Your task to perform on an android device: Go to Amazon Image 0: 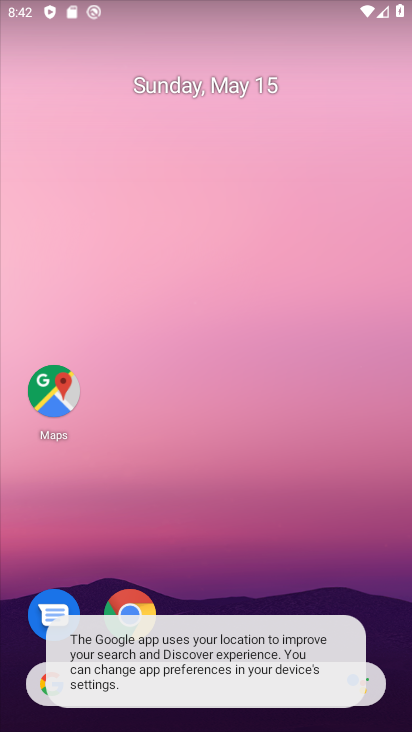
Step 0: drag from (245, 564) to (166, 14)
Your task to perform on an android device: Go to Amazon Image 1: 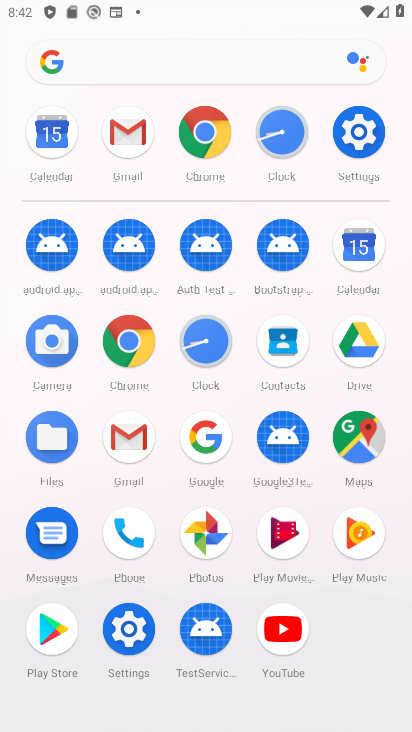
Step 1: click (128, 340)
Your task to perform on an android device: Go to Amazon Image 2: 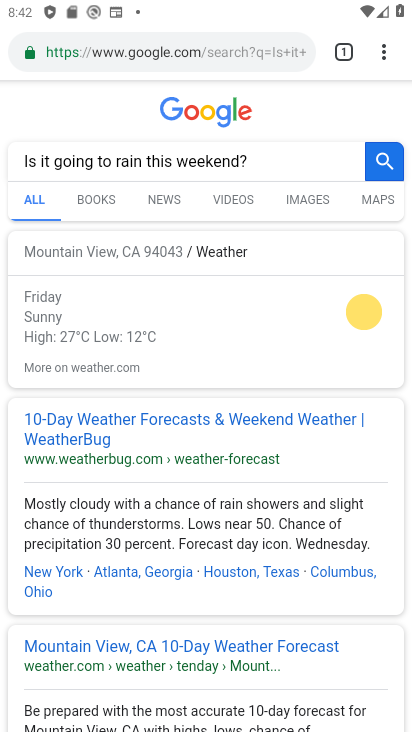
Step 2: click (185, 41)
Your task to perform on an android device: Go to Amazon Image 3: 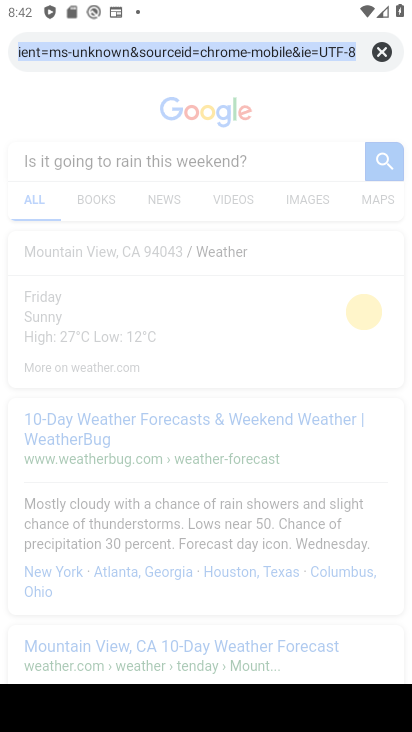
Step 3: click (377, 55)
Your task to perform on an android device: Go to Amazon Image 4: 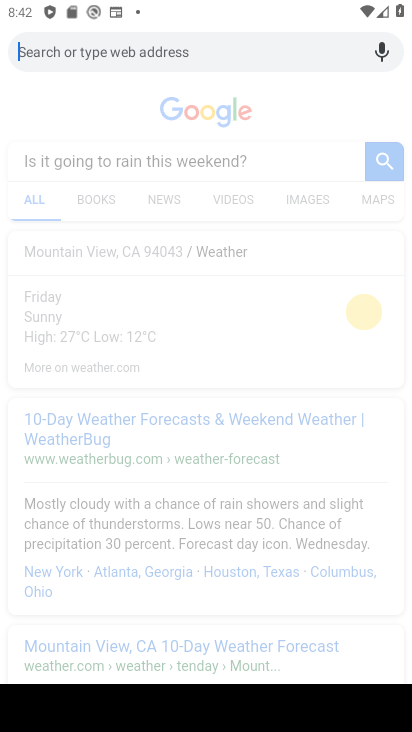
Step 4: type "Amazon"
Your task to perform on an android device: Go to Amazon Image 5: 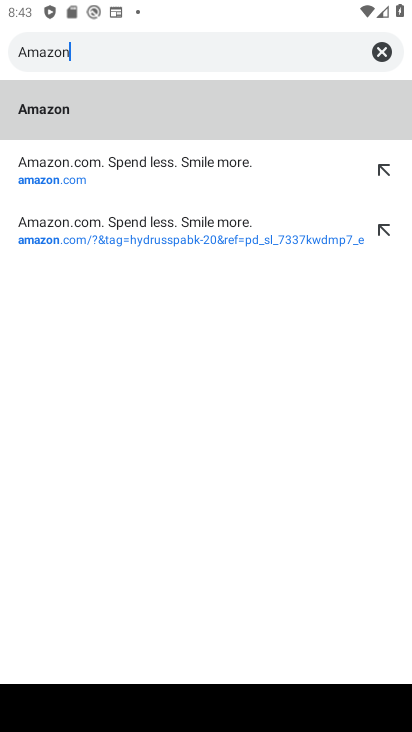
Step 5: type ""
Your task to perform on an android device: Go to Amazon Image 6: 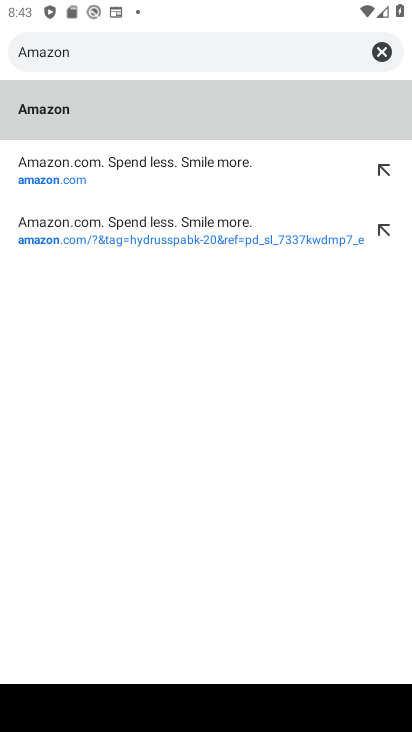
Step 6: click (138, 166)
Your task to perform on an android device: Go to Amazon Image 7: 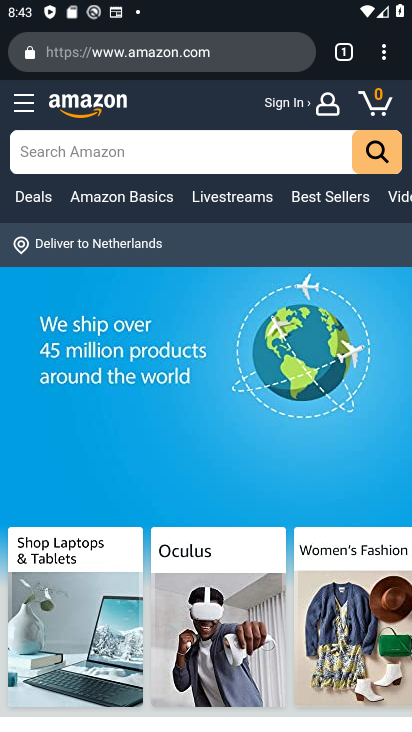
Step 7: task complete